Your task to perform on an android device: Open display settings Image 0: 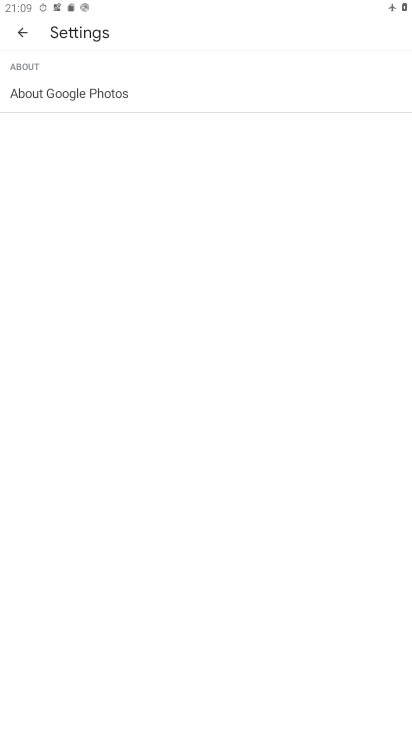
Step 0: click (21, 34)
Your task to perform on an android device: Open display settings Image 1: 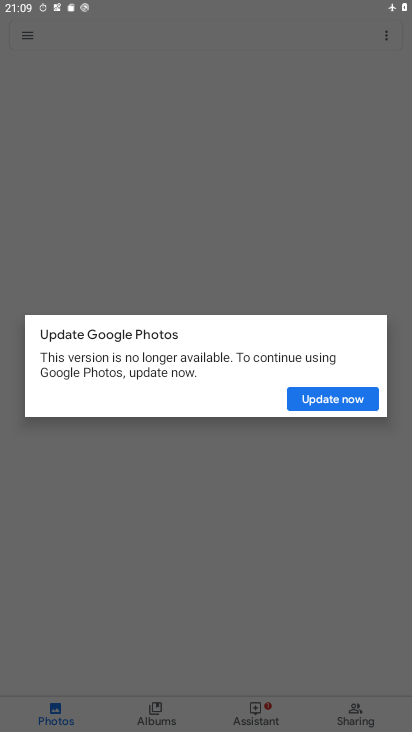
Step 1: press home button
Your task to perform on an android device: Open display settings Image 2: 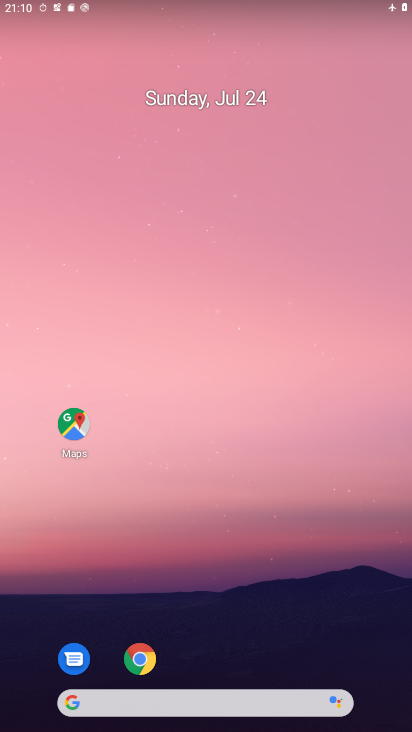
Step 2: drag from (195, 723) to (195, 132)
Your task to perform on an android device: Open display settings Image 3: 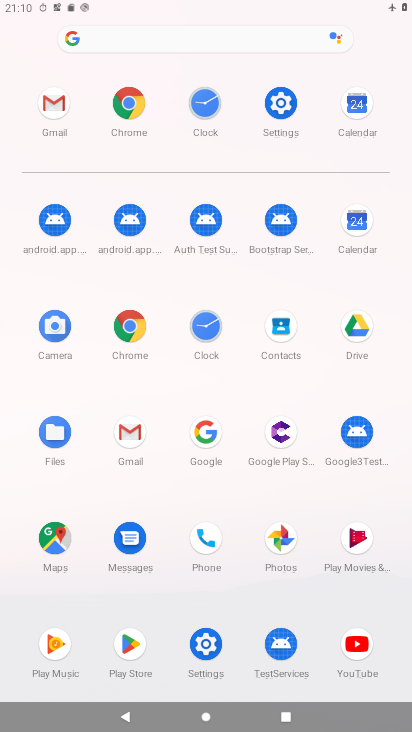
Step 3: click (287, 93)
Your task to perform on an android device: Open display settings Image 4: 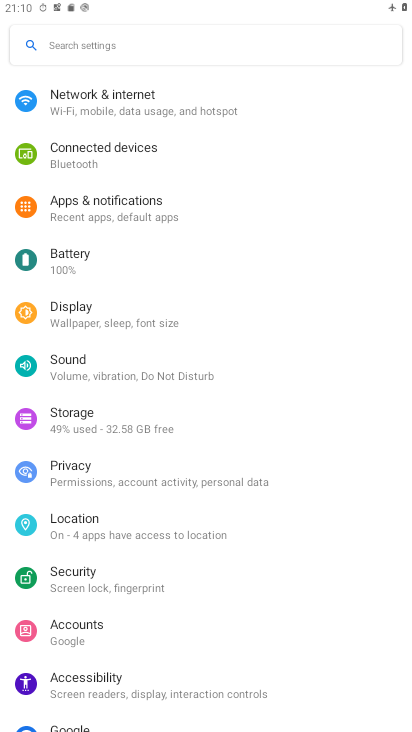
Step 4: click (74, 310)
Your task to perform on an android device: Open display settings Image 5: 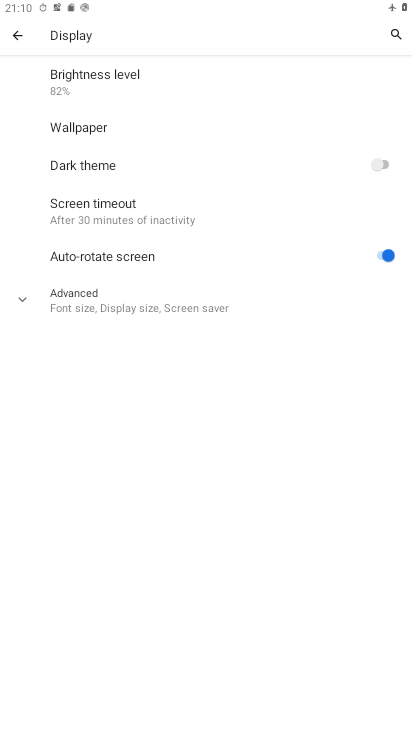
Step 5: task complete